Your task to perform on an android device: change the clock style Image 0: 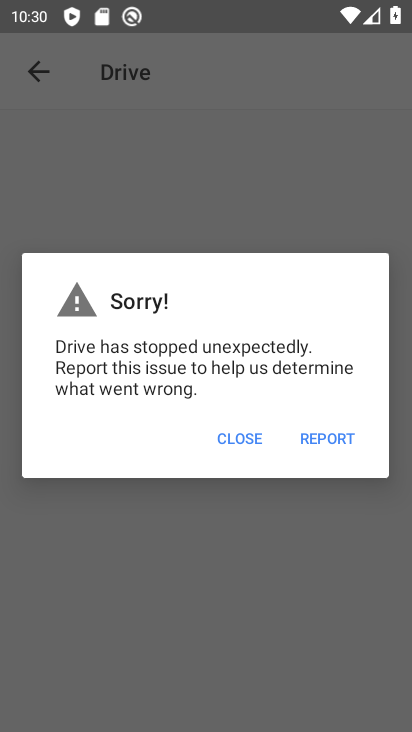
Step 0: press home button
Your task to perform on an android device: change the clock style Image 1: 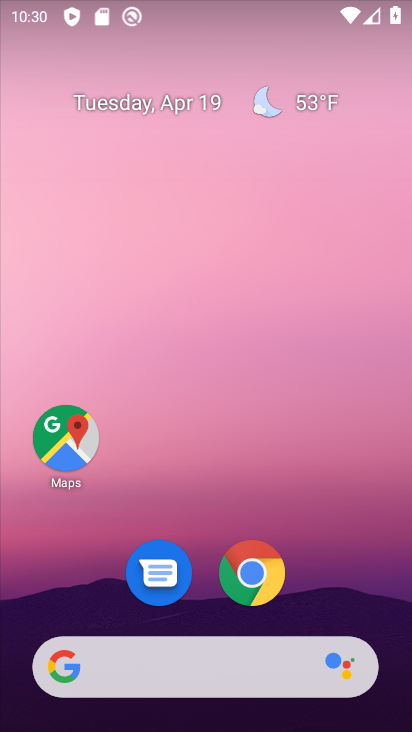
Step 1: drag from (197, 720) to (197, 132)
Your task to perform on an android device: change the clock style Image 2: 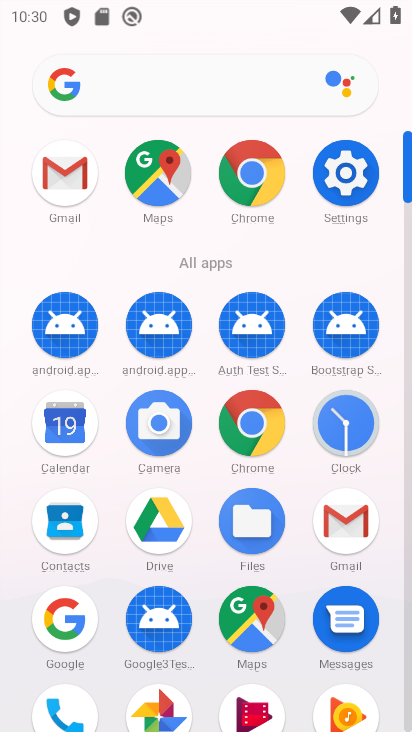
Step 2: click (341, 422)
Your task to perform on an android device: change the clock style Image 3: 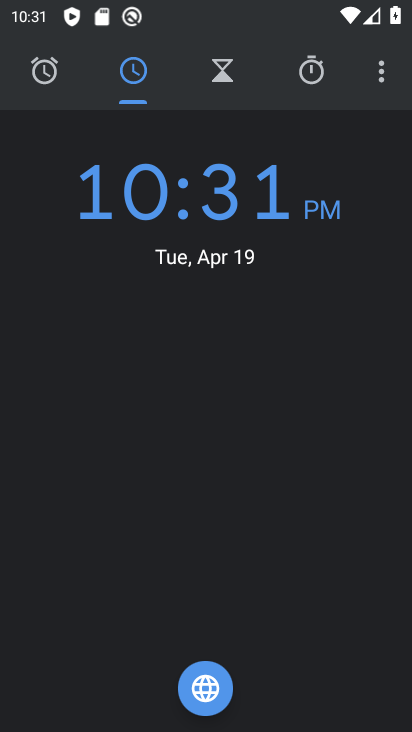
Step 3: click (381, 74)
Your task to perform on an android device: change the clock style Image 4: 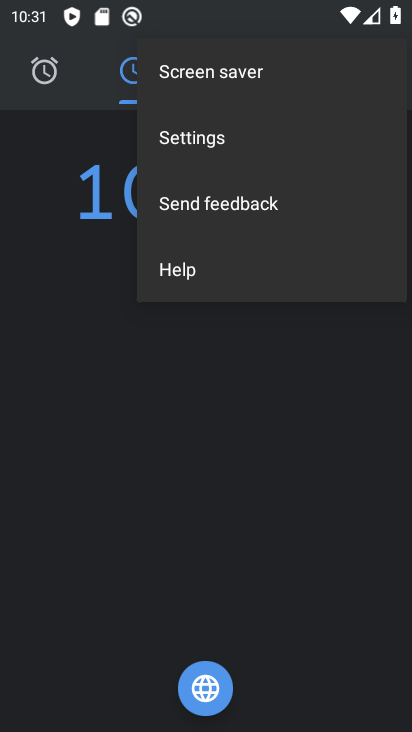
Step 4: click (196, 136)
Your task to perform on an android device: change the clock style Image 5: 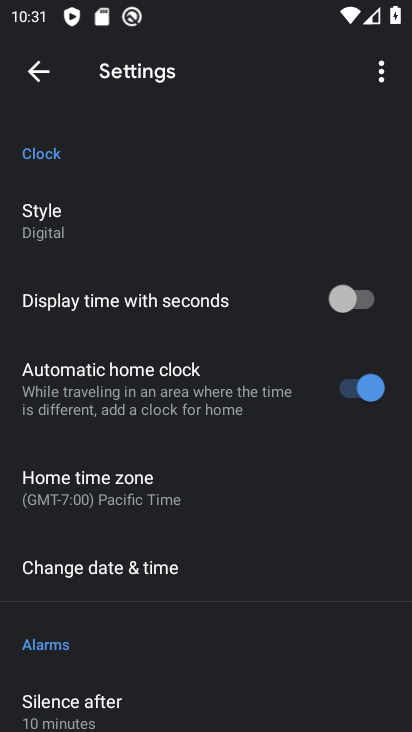
Step 5: click (50, 220)
Your task to perform on an android device: change the clock style Image 6: 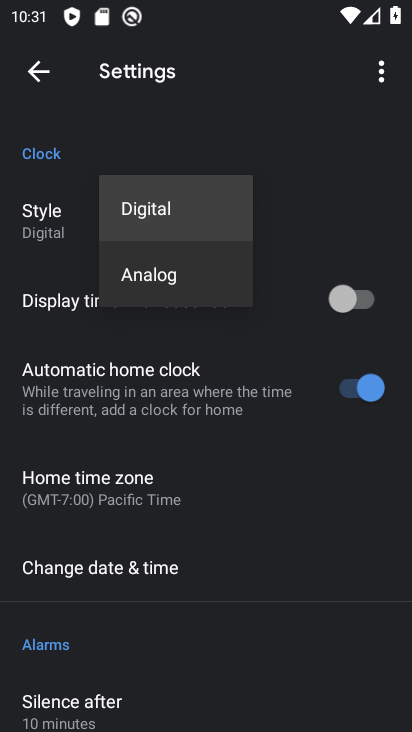
Step 6: click (146, 280)
Your task to perform on an android device: change the clock style Image 7: 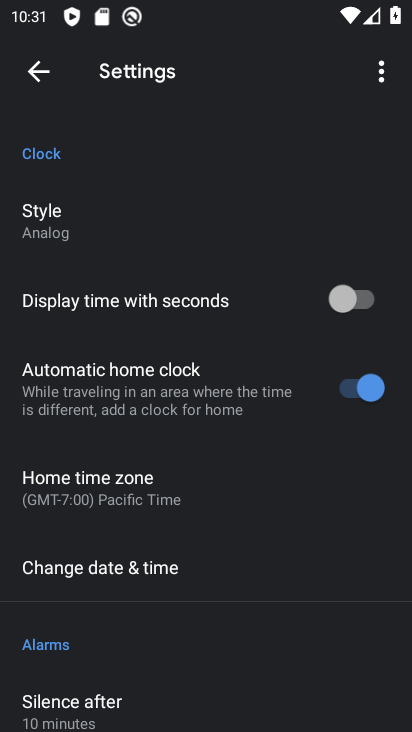
Step 7: task complete